Your task to perform on an android device: change the clock style Image 0: 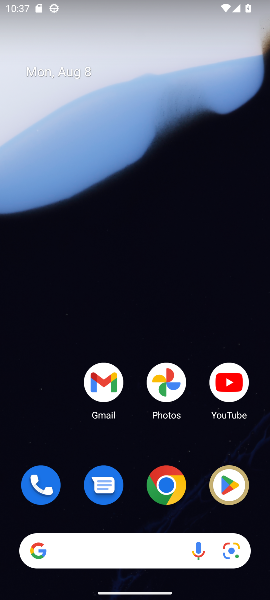
Step 0: drag from (184, 467) to (198, 39)
Your task to perform on an android device: change the clock style Image 1: 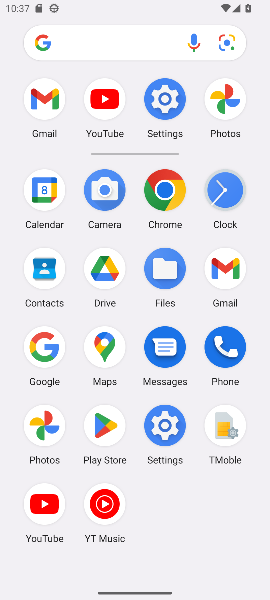
Step 1: click (225, 184)
Your task to perform on an android device: change the clock style Image 2: 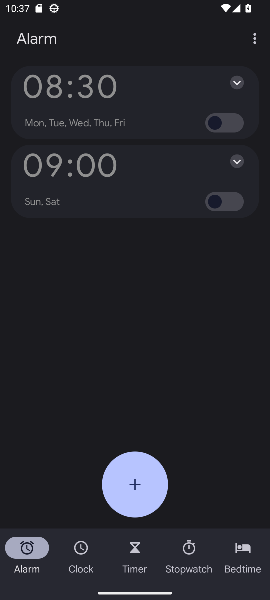
Step 2: click (255, 41)
Your task to perform on an android device: change the clock style Image 3: 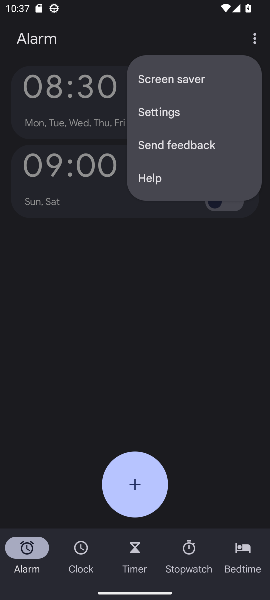
Step 3: click (184, 112)
Your task to perform on an android device: change the clock style Image 4: 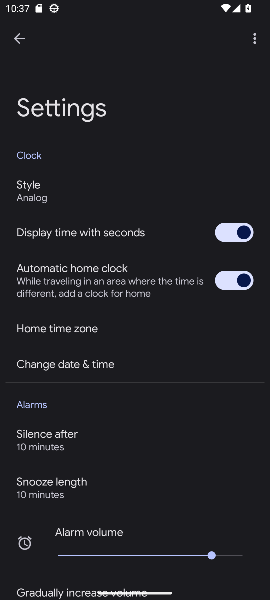
Step 4: drag from (194, 499) to (158, 178)
Your task to perform on an android device: change the clock style Image 5: 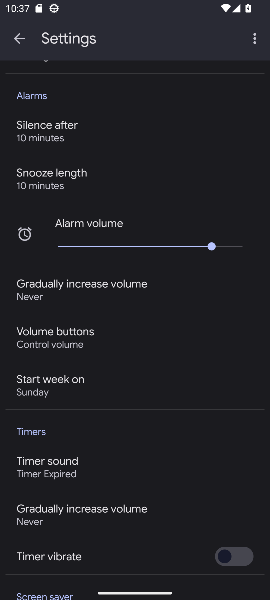
Step 5: drag from (185, 438) to (187, 94)
Your task to perform on an android device: change the clock style Image 6: 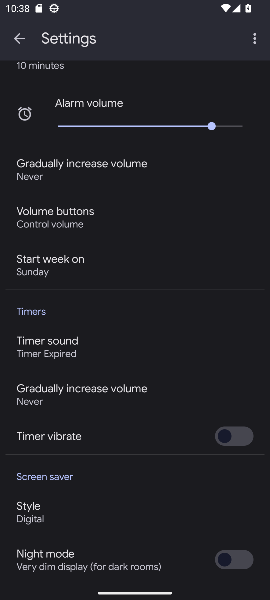
Step 6: click (21, 509)
Your task to perform on an android device: change the clock style Image 7: 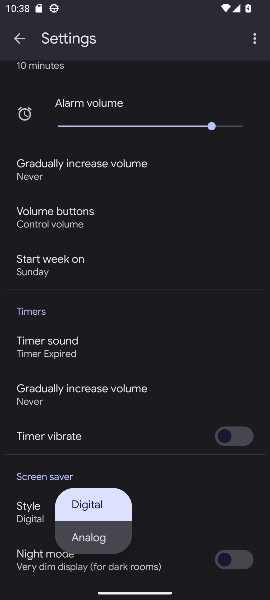
Step 7: click (98, 511)
Your task to perform on an android device: change the clock style Image 8: 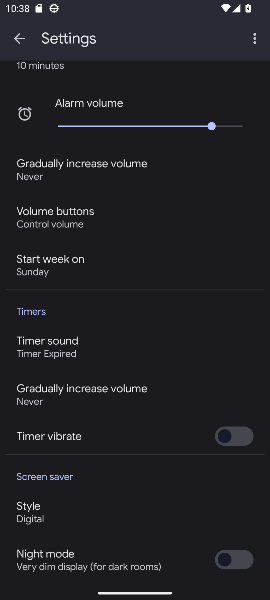
Step 8: click (28, 517)
Your task to perform on an android device: change the clock style Image 9: 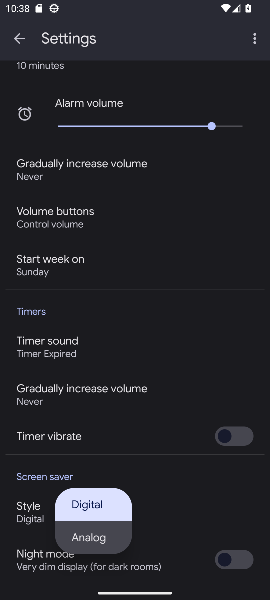
Step 9: click (83, 532)
Your task to perform on an android device: change the clock style Image 10: 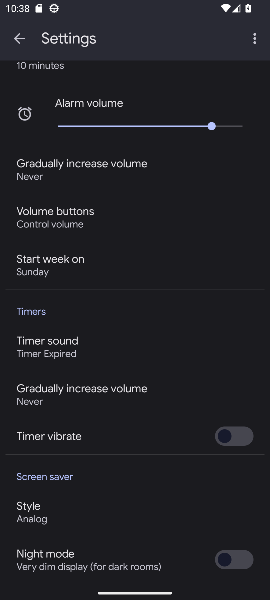
Step 10: task complete